Your task to perform on an android device: Do I have any events tomorrow? Image 0: 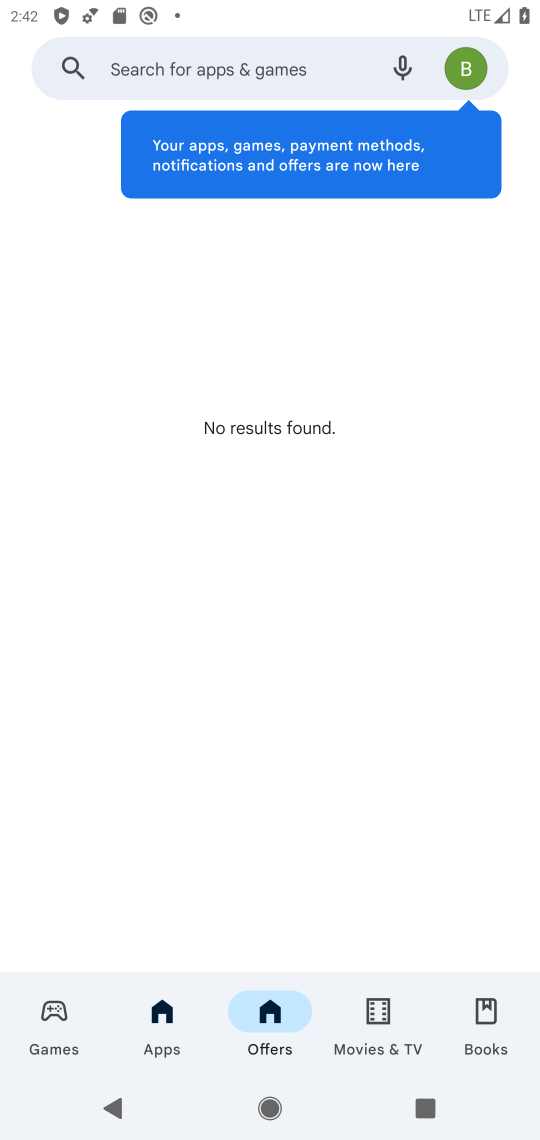
Step 0: press home button
Your task to perform on an android device: Do I have any events tomorrow? Image 1: 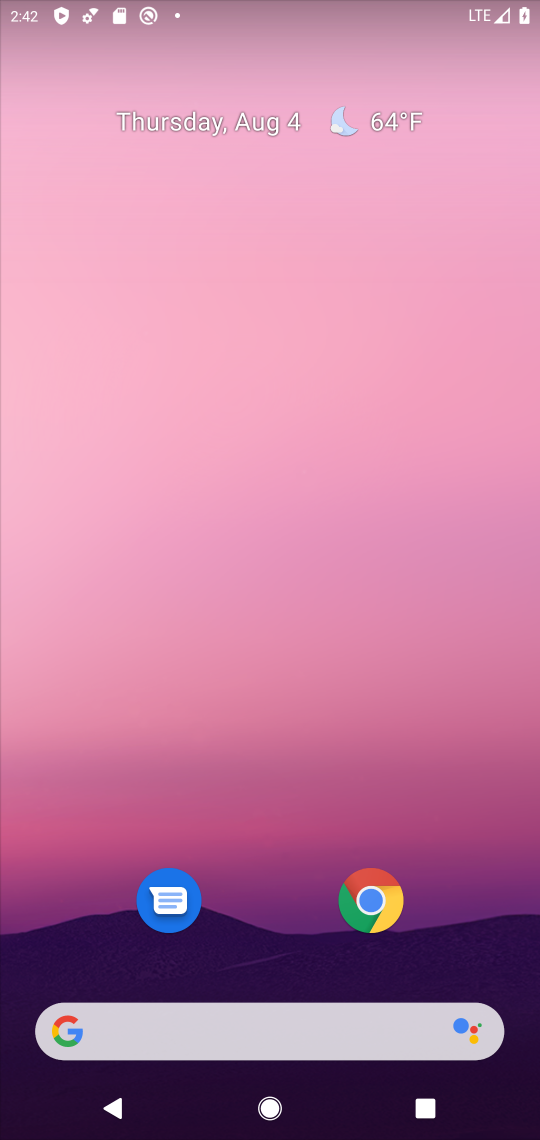
Step 1: drag from (473, 963) to (474, 2)
Your task to perform on an android device: Do I have any events tomorrow? Image 2: 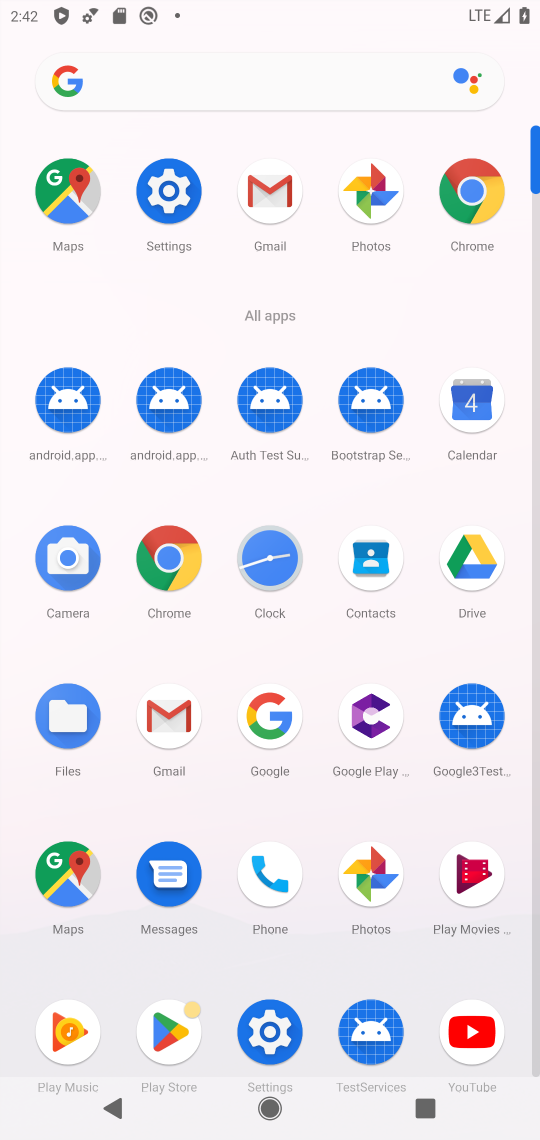
Step 2: click (470, 424)
Your task to perform on an android device: Do I have any events tomorrow? Image 3: 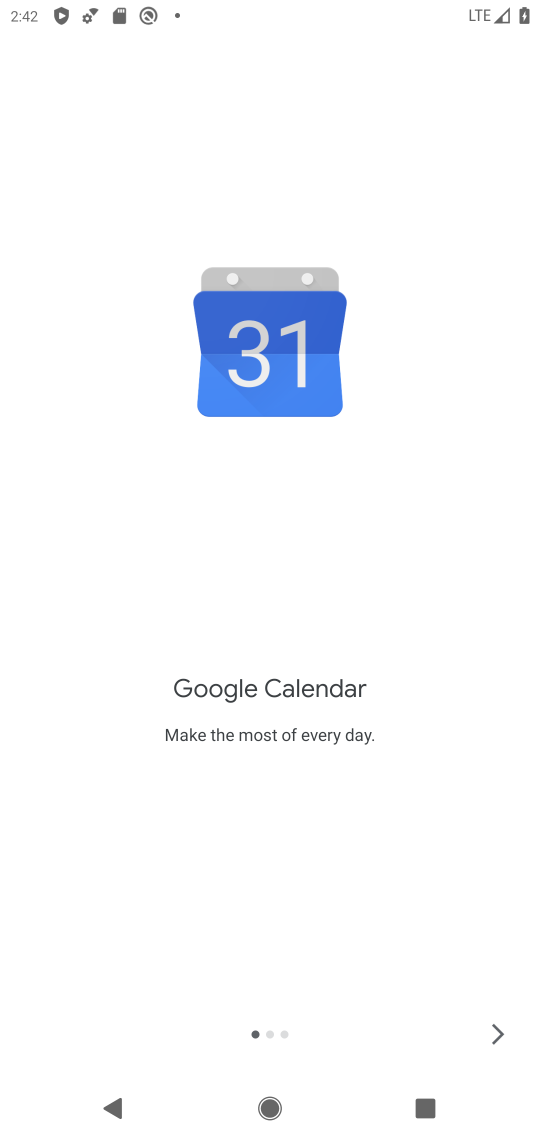
Step 3: click (503, 1026)
Your task to perform on an android device: Do I have any events tomorrow? Image 4: 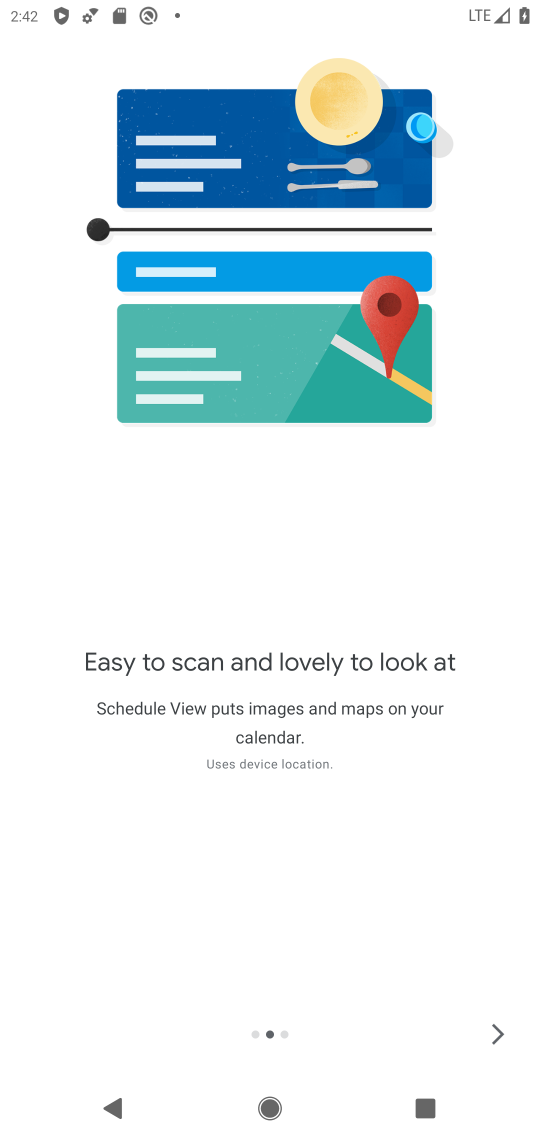
Step 4: click (525, 1043)
Your task to perform on an android device: Do I have any events tomorrow? Image 5: 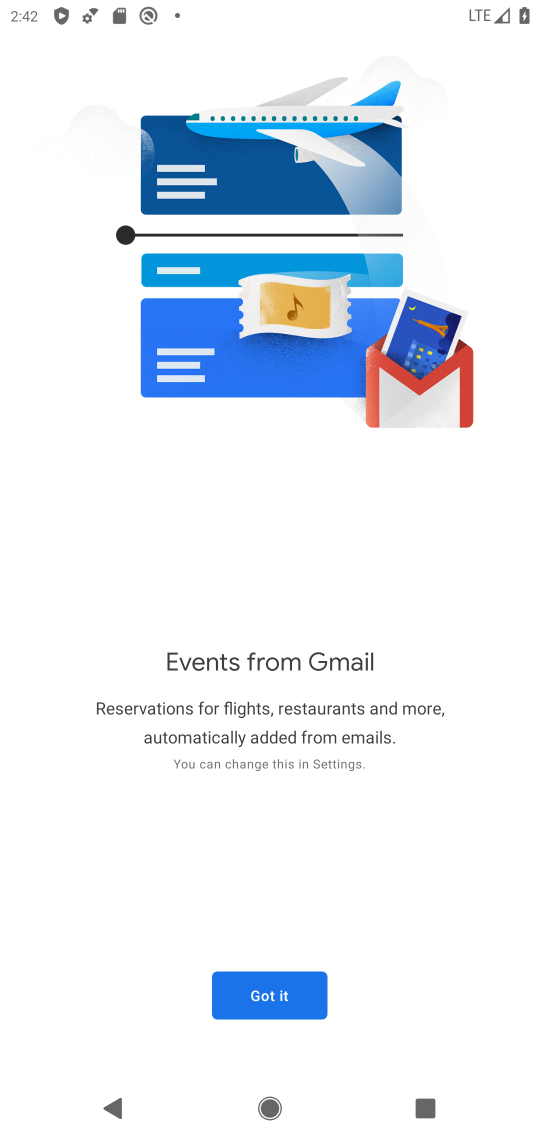
Step 5: click (234, 999)
Your task to perform on an android device: Do I have any events tomorrow? Image 6: 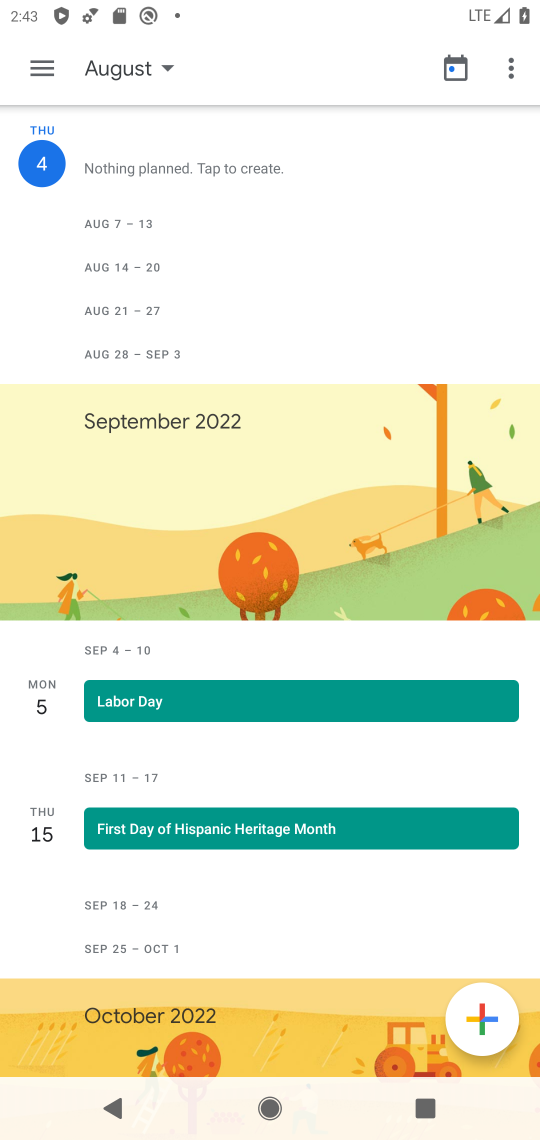
Step 6: click (31, 72)
Your task to perform on an android device: Do I have any events tomorrow? Image 7: 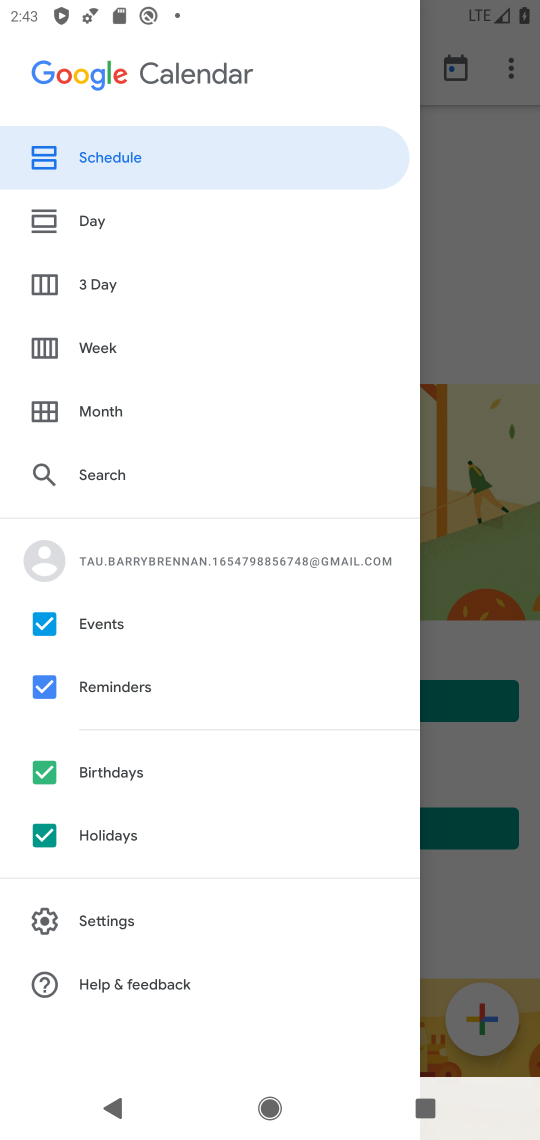
Step 7: click (34, 839)
Your task to perform on an android device: Do I have any events tomorrow? Image 8: 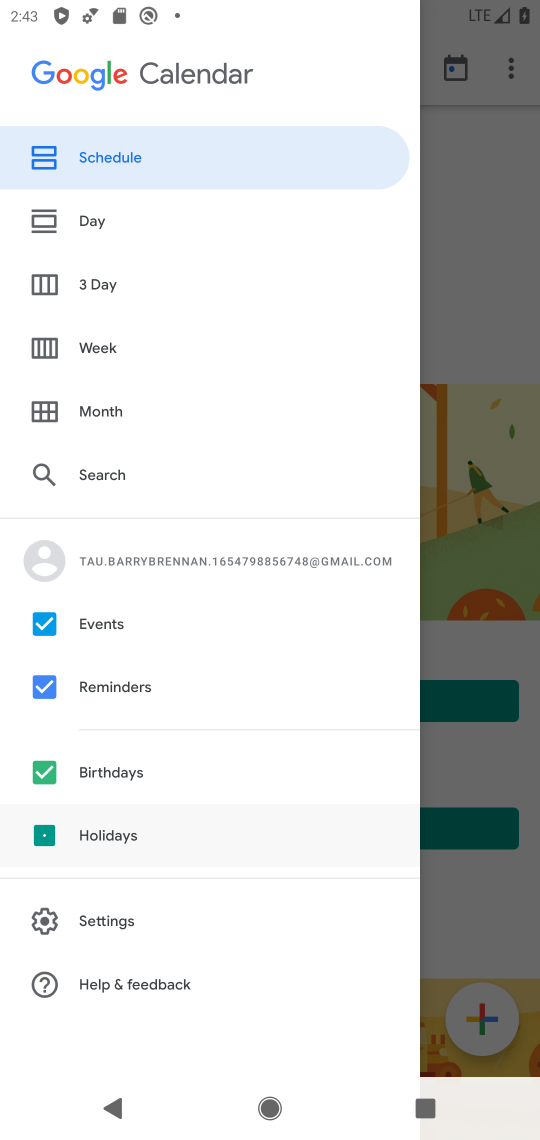
Step 8: click (46, 782)
Your task to perform on an android device: Do I have any events tomorrow? Image 9: 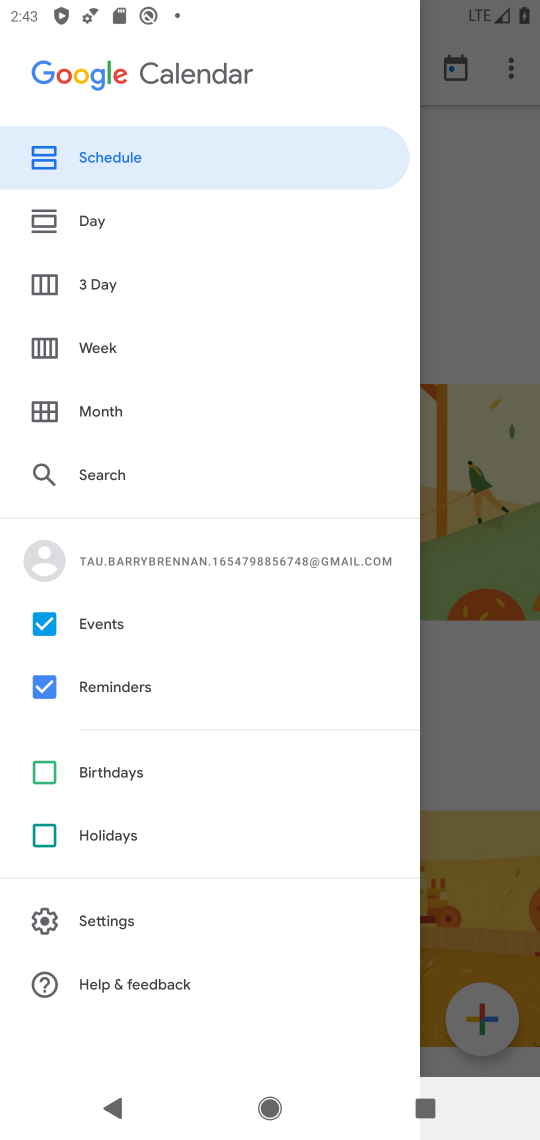
Step 9: click (45, 695)
Your task to perform on an android device: Do I have any events tomorrow? Image 10: 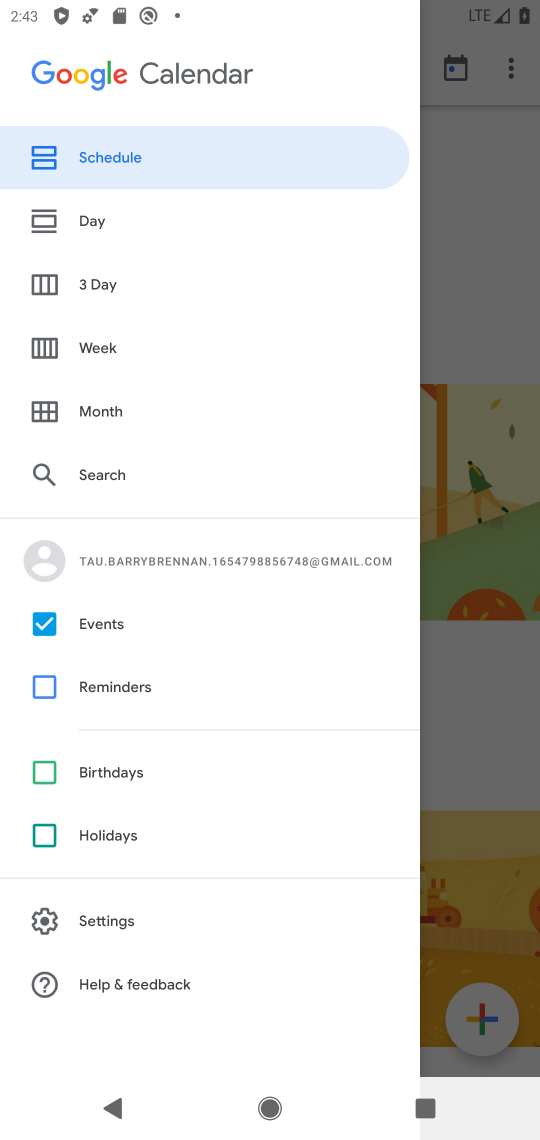
Step 10: click (130, 212)
Your task to perform on an android device: Do I have any events tomorrow? Image 11: 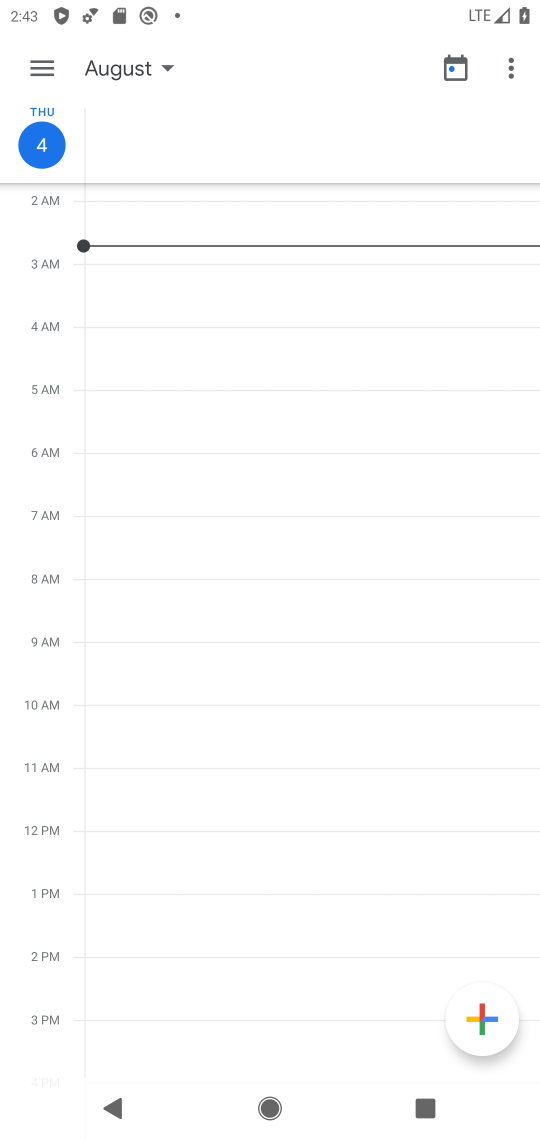
Step 11: task complete